Your task to perform on an android device: Go to Yahoo.com Image 0: 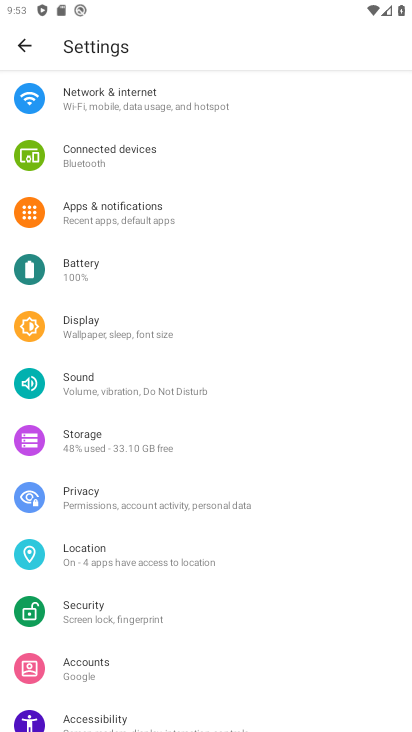
Step 0: press home button
Your task to perform on an android device: Go to Yahoo.com Image 1: 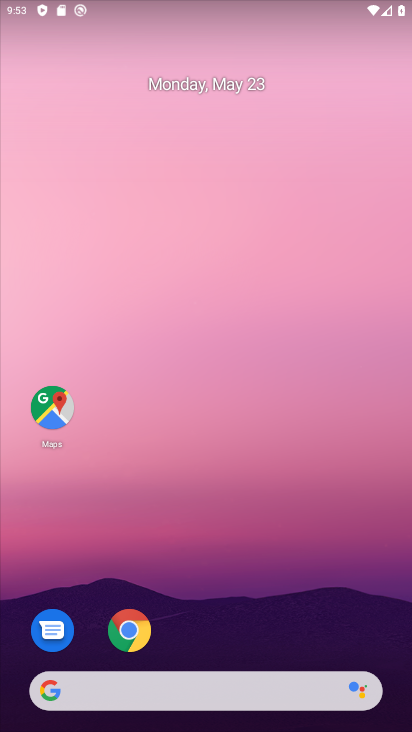
Step 1: click (131, 640)
Your task to perform on an android device: Go to Yahoo.com Image 2: 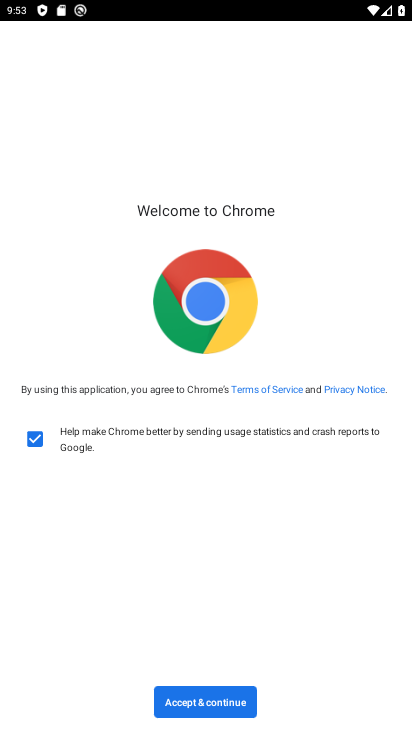
Step 2: click (185, 706)
Your task to perform on an android device: Go to Yahoo.com Image 3: 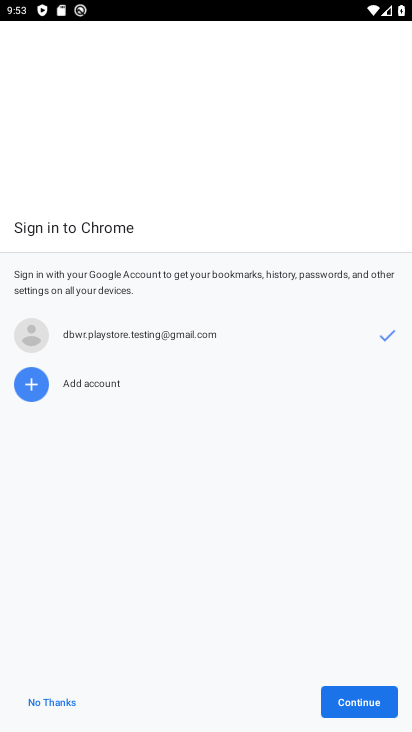
Step 3: click (75, 702)
Your task to perform on an android device: Go to Yahoo.com Image 4: 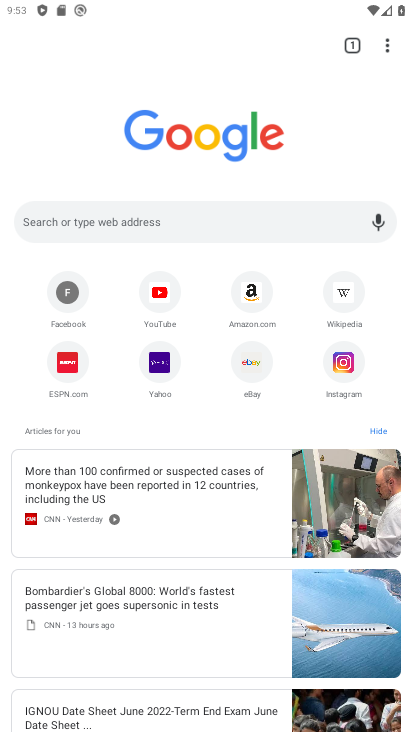
Step 4: click (160, 366)
Your task to perform on an android device: Go to Yahoo.com Image 5: 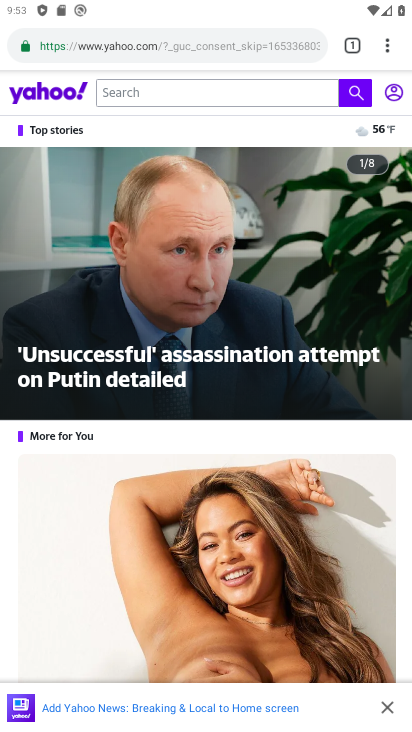
Step 5: task complete